Your task to perform on an android device: Open Amazon Image 0: 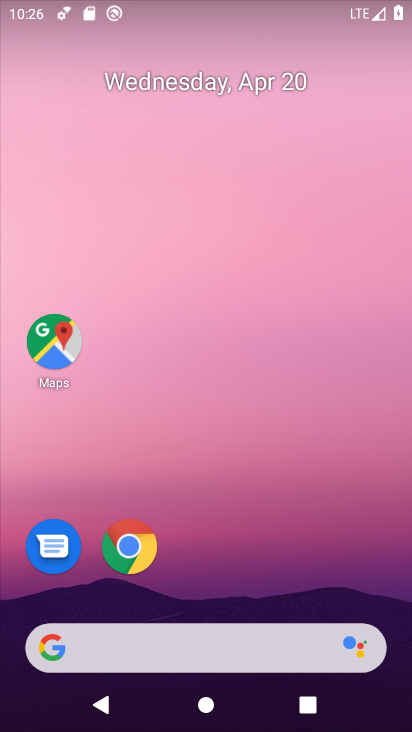
Step 0: click (152, 545)
Your task to perform on an android device: Open Amazon Image 1: 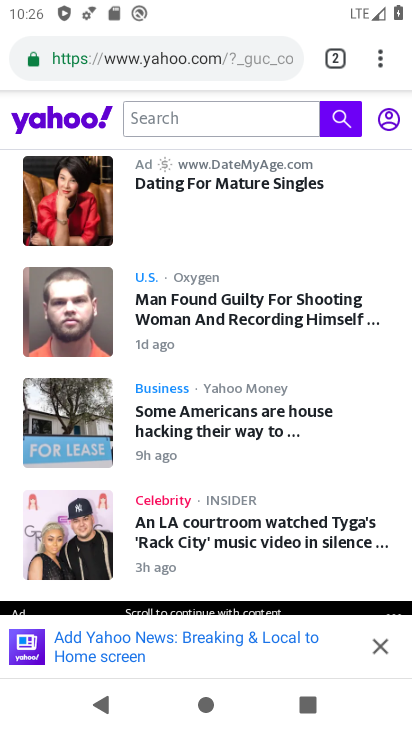
Step 1: click (327, 61)
Your task to perform on an android device: Open Amazon Image 2: 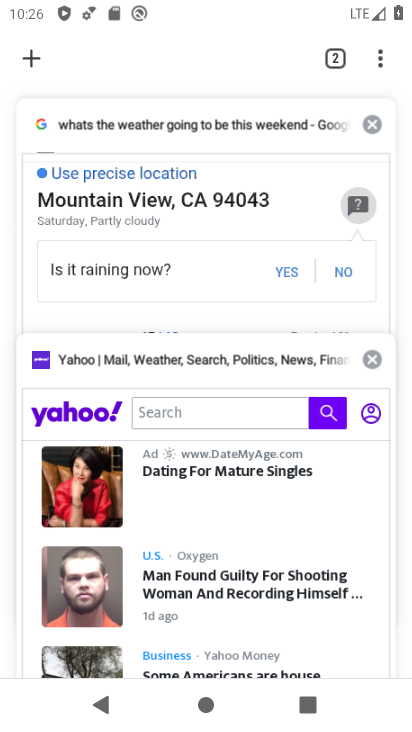
Step 2: click (28, 61)
Your task to perform on an android device: Open Amazon Image 3: 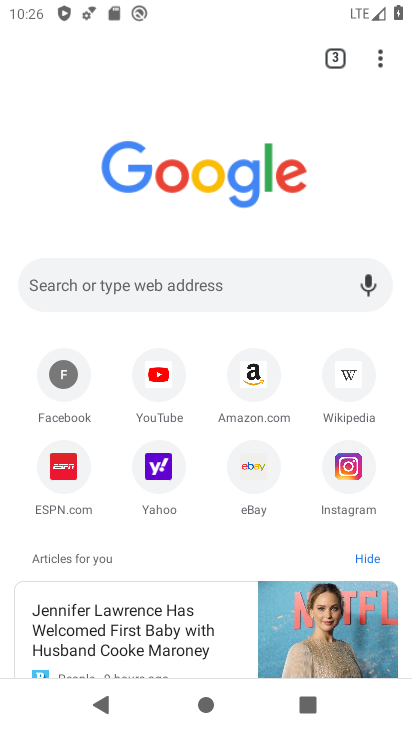
Step 3: click (251, 374)
Your task to perform on an android device: Open Amazon Image 4: 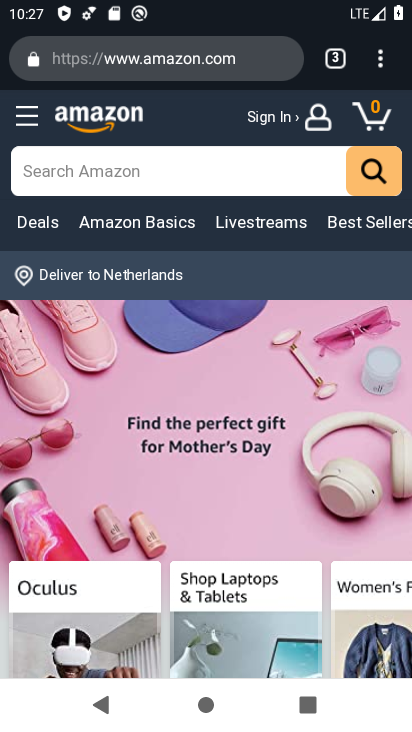
Step 4: task complete